Your task to perform on an android device: toggle wifi Image 0: 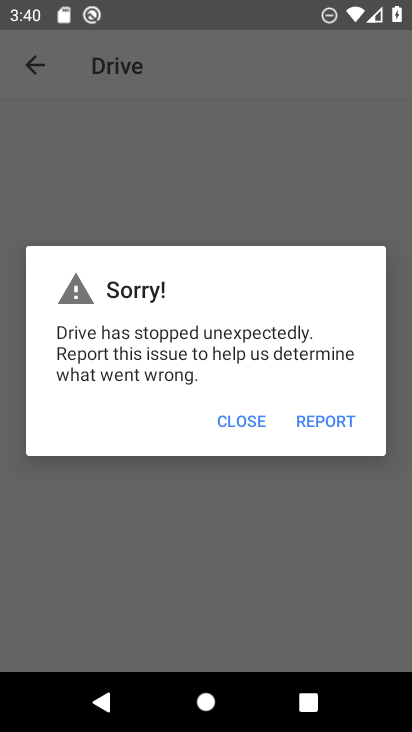
Step 0: press home button
Your task to perform on an android device: toggle wifi Image 1: 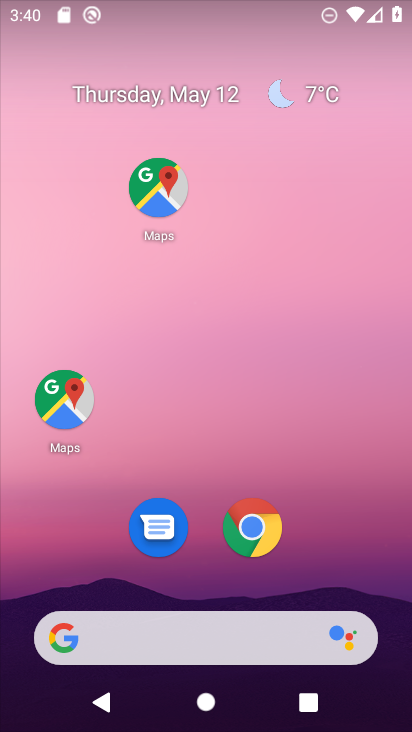
Step 1: drag from (220, 584) to (225, 14)
Your task to perform on an android device: toggle wifi Image 2: 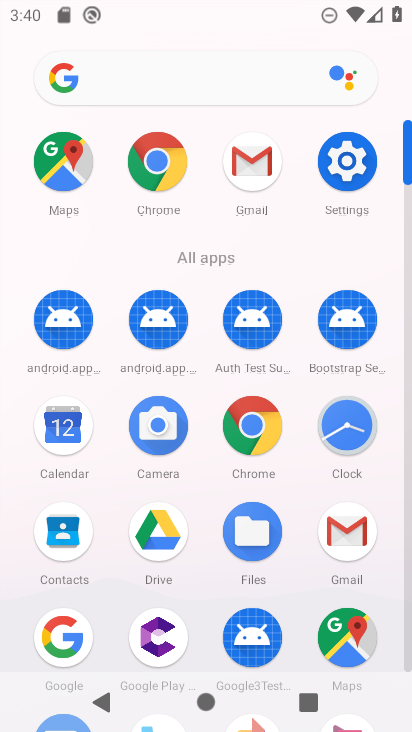
Step 2: click (338, 167)
Your task to perform on an android device: toggle wifi Image 3: 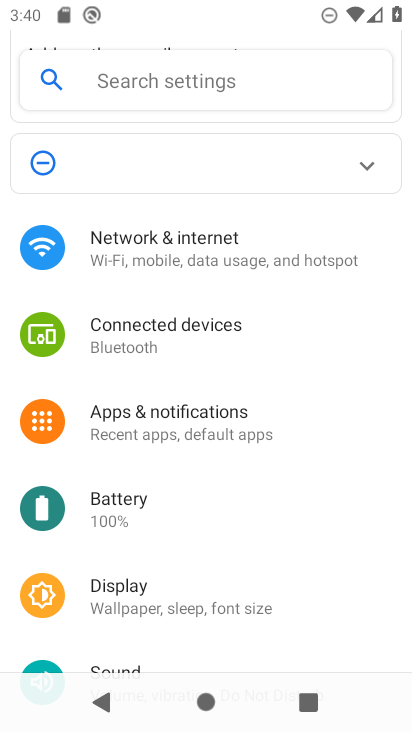
Step 3: click (160, 231)
Your task to perform on an android device: toggle wifi Image 4: 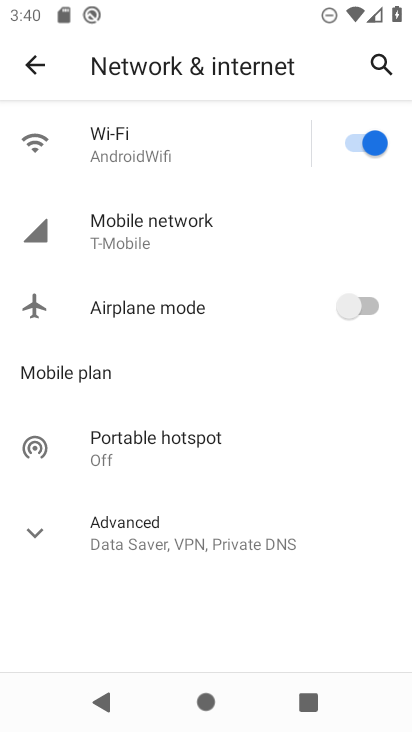
Step 4: click (130, 156)
Your task to perform on an android device: toggle wifi Image 5: 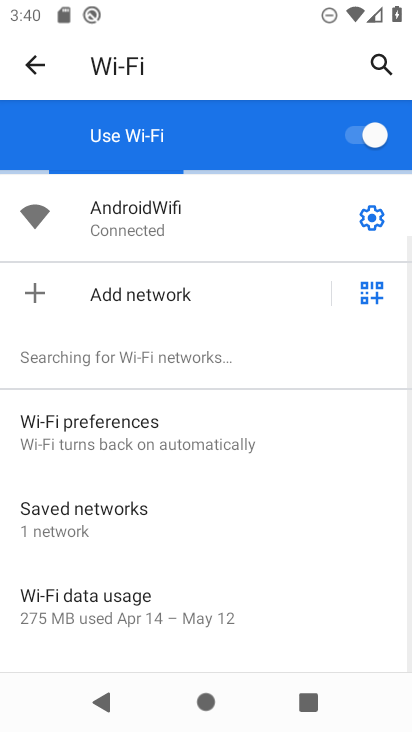
Step 5: click (339, 131)
Your task to perform on an android device: toggle wifi Image 6: 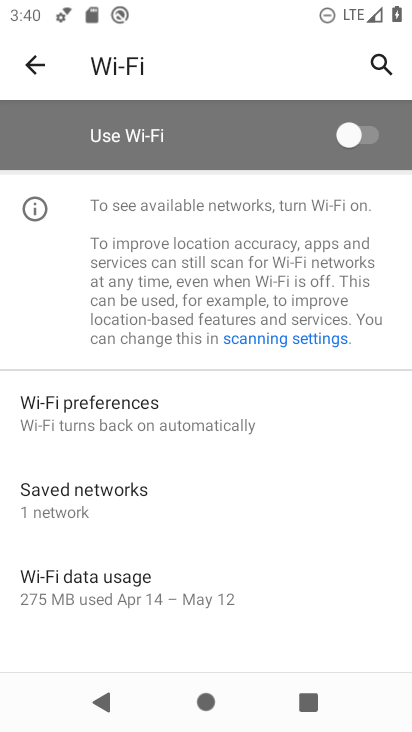
Step 6: task complete